Your task to perform on an android device: See recent photos Image 0: 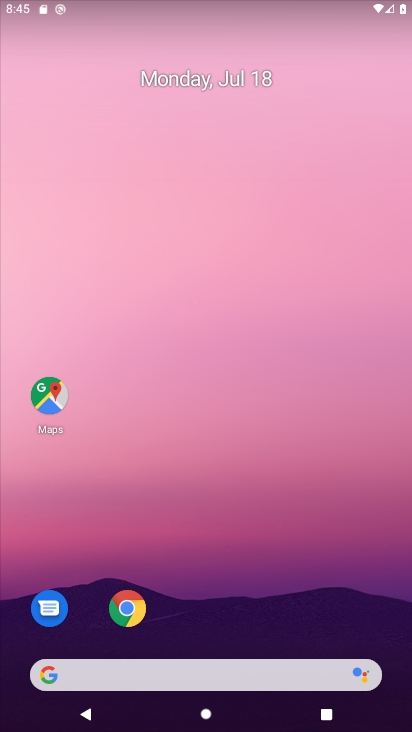
Step 0: drag from (199, 680) to (226, 250)
Your task to perform on an android device: See recent photos Image 1: 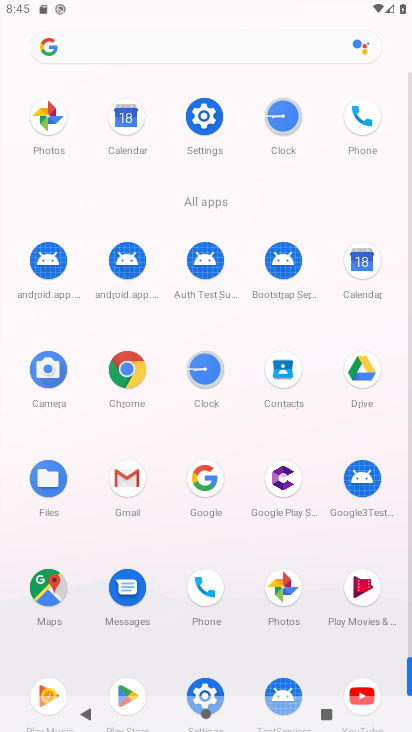
Step 1: click (287, 587)
Your task to perform on an android device: See recent photos Image 2: 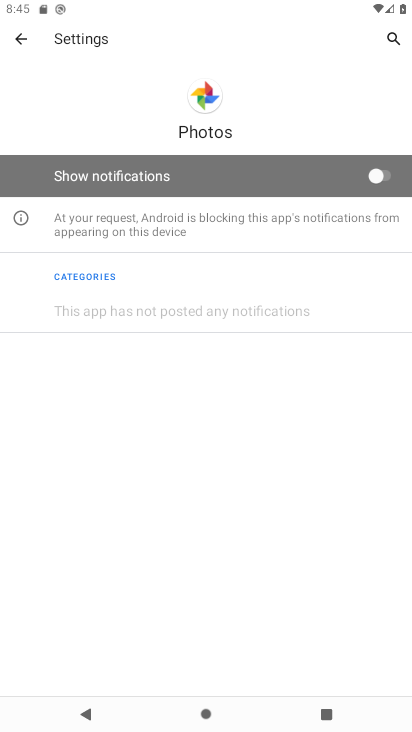
Step 2: press back button
Your task to perform on an android device: See recent photos Image 3: 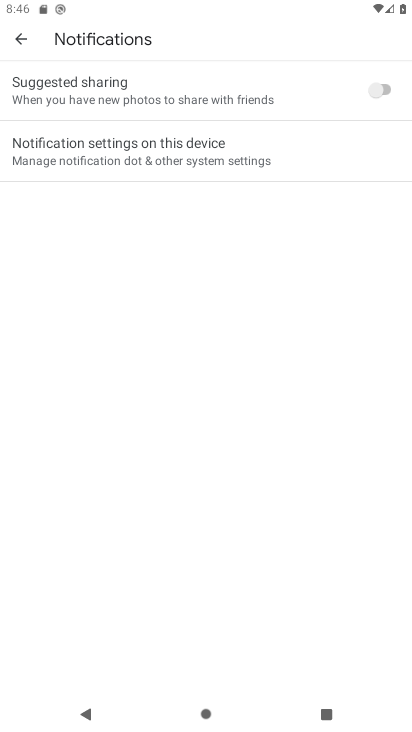
Step 3: press back button
Your task to perform on an android device: See recent photos Image 4: 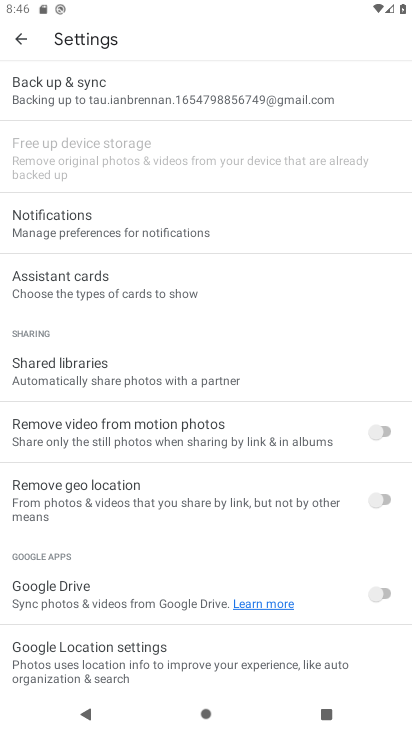
Step 4: press back button
Your task to perform on an android device: See recent photos Image 5: 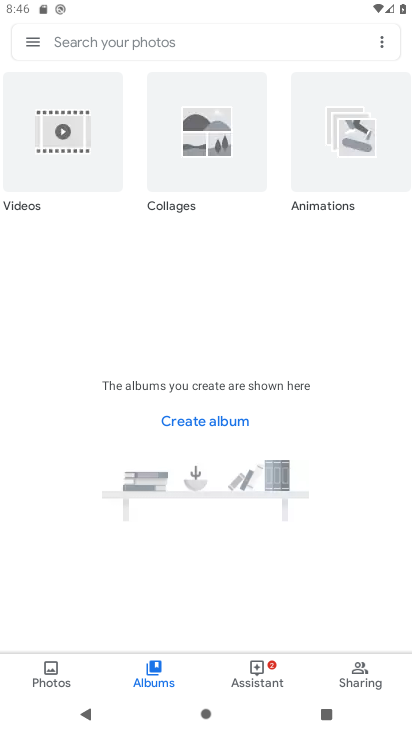
Step 5: click (48, 664)
Your task to perform on an android device: See recent photos Image 6: 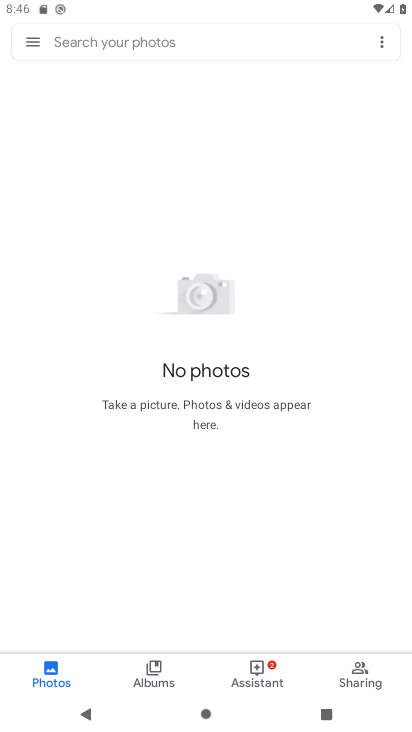
Step 6: task complete